Your task to perform on an android device: Add macbook to the cart on bestbuy, then select checkout. Image 0: 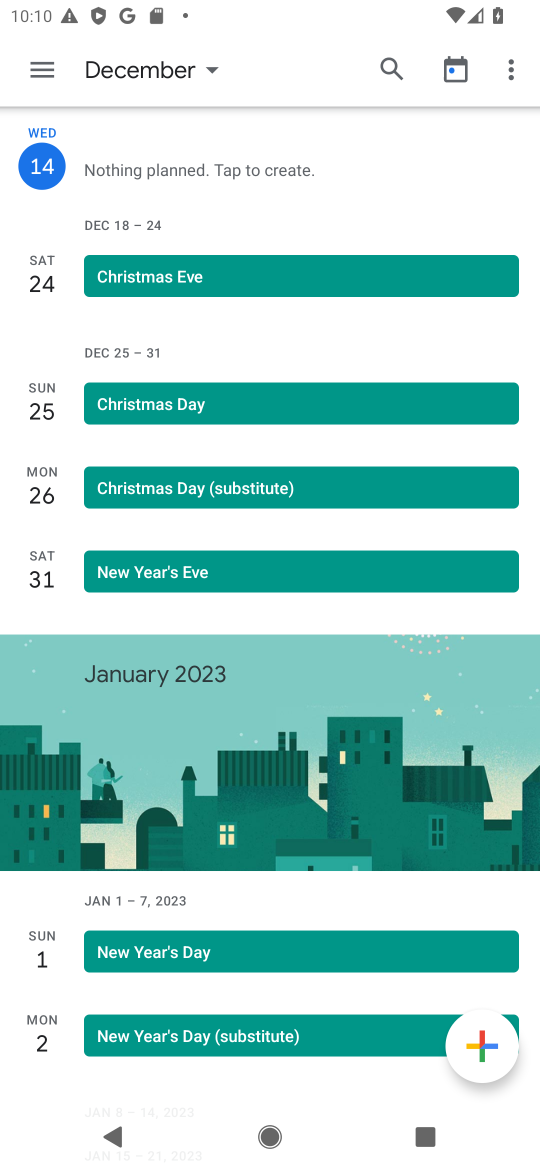
Step 0: press home button
Your task to perform on an android device: Add macbook to the cart on bestbuy, then select checkout. Image 1: 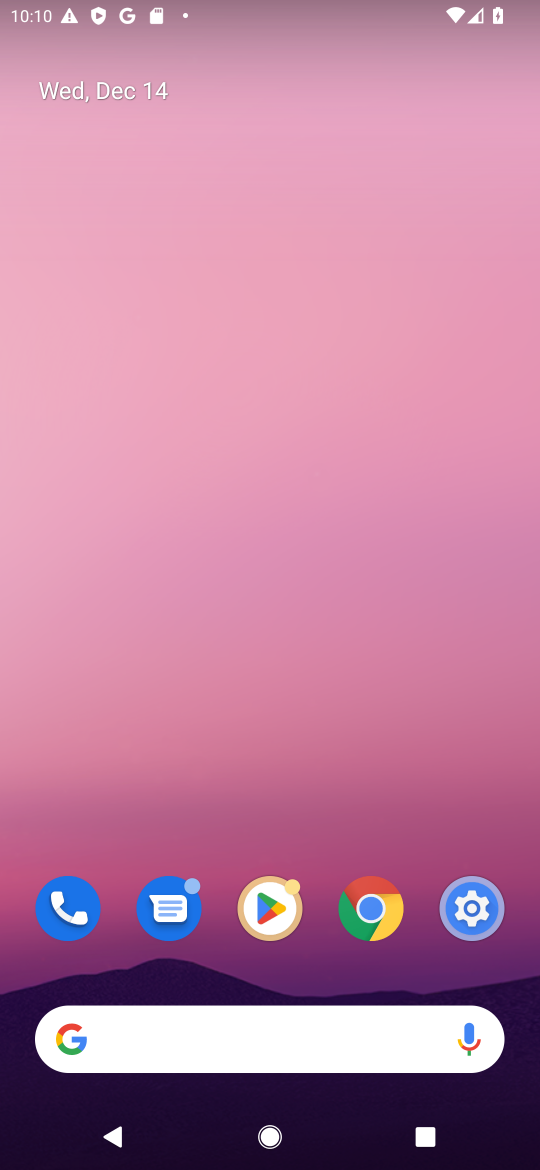
Step 1: click (367, 937)
Your task to perform on an android device: Add macbook to the cart on bestbuy, then select checkout. Image 2: 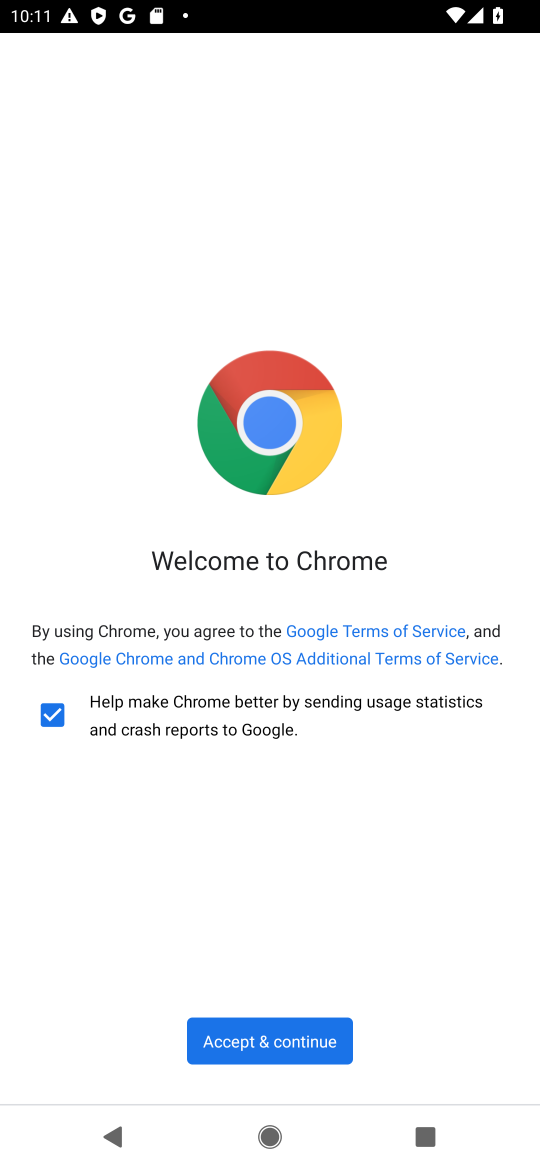
Step 2: click (300, 1039)
Your task to perform on an android device: Add macbook to the cart on bestbuy, then select checkout. Image 3: 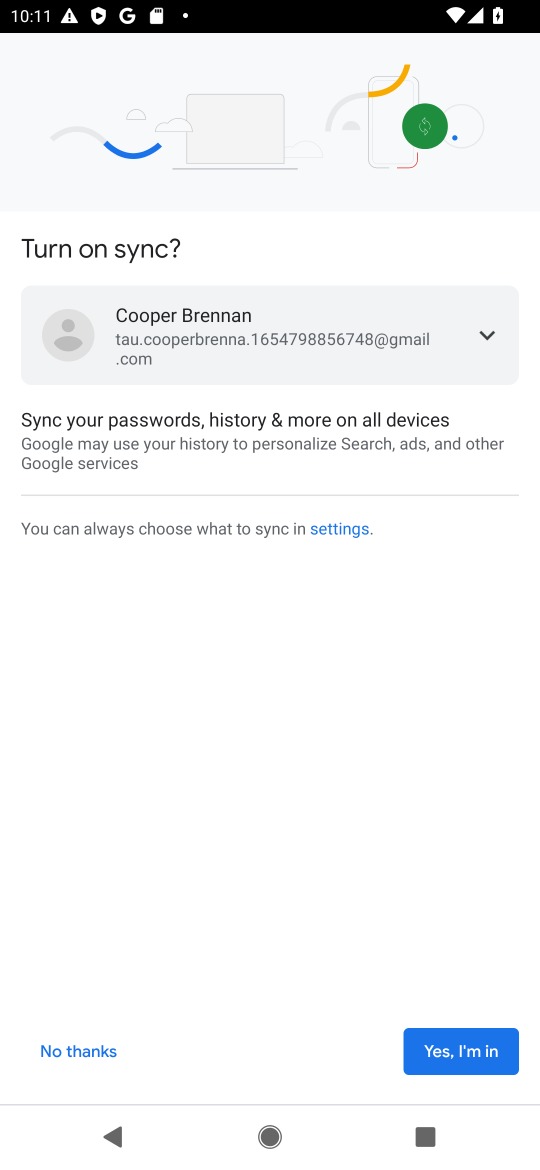
Step 3: click (498, 1063)
Your task to perform on an android device: Add macbook to the cart on bestbuy, then select checkout. Image 4: 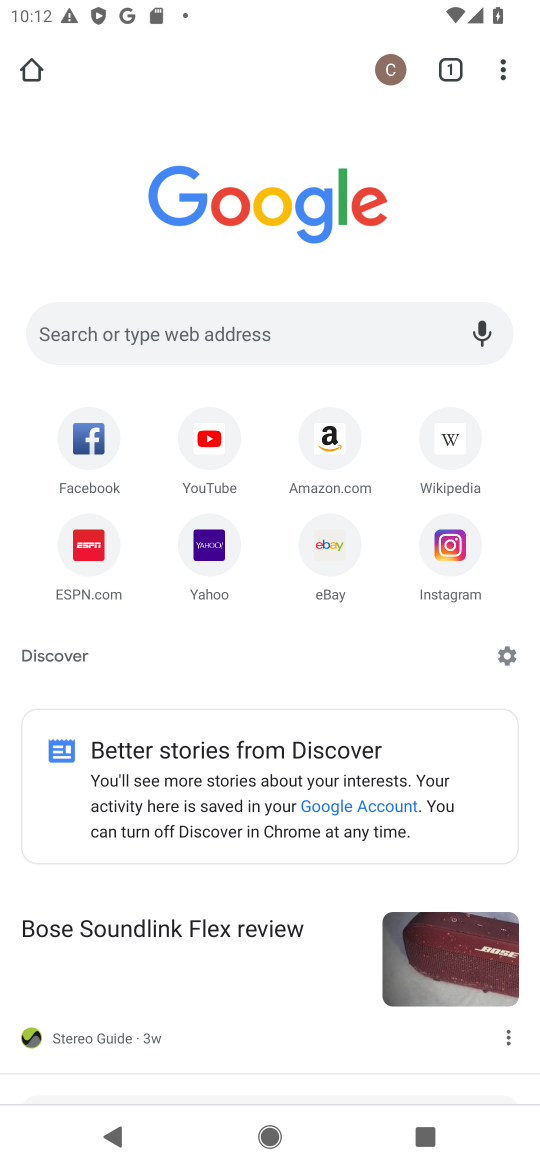
Step 4: click (221, 347)
Your task to perform on an android device: Add macbook to the cart on bestbuy, then select checkout. Image 5: 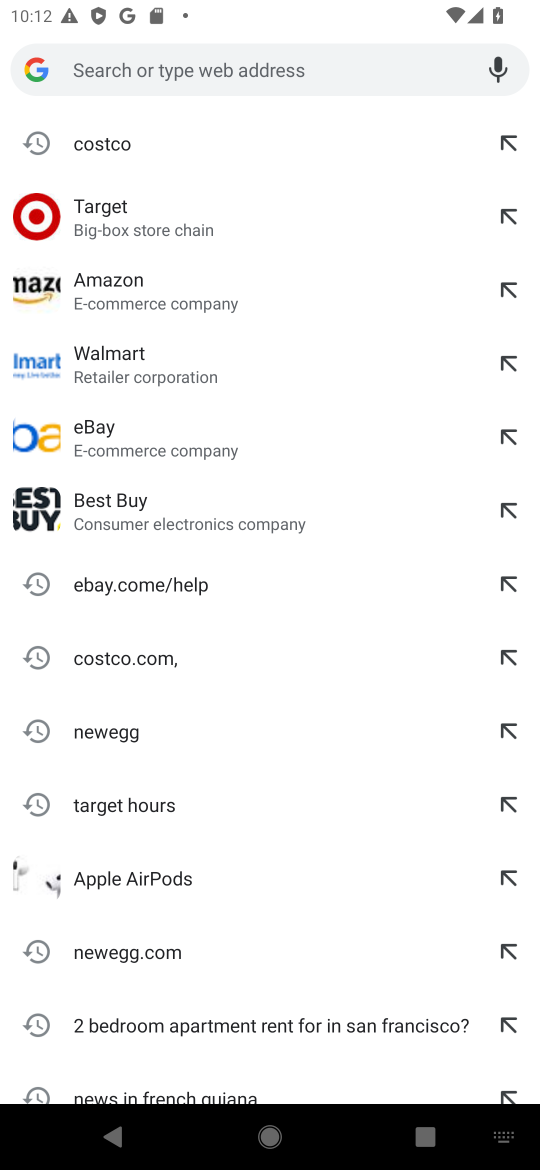
Step 5: type "bestbuy"
Your task to perform on an android device: Add macbook to the cart on bestbuy, then select checkout. Image 6: 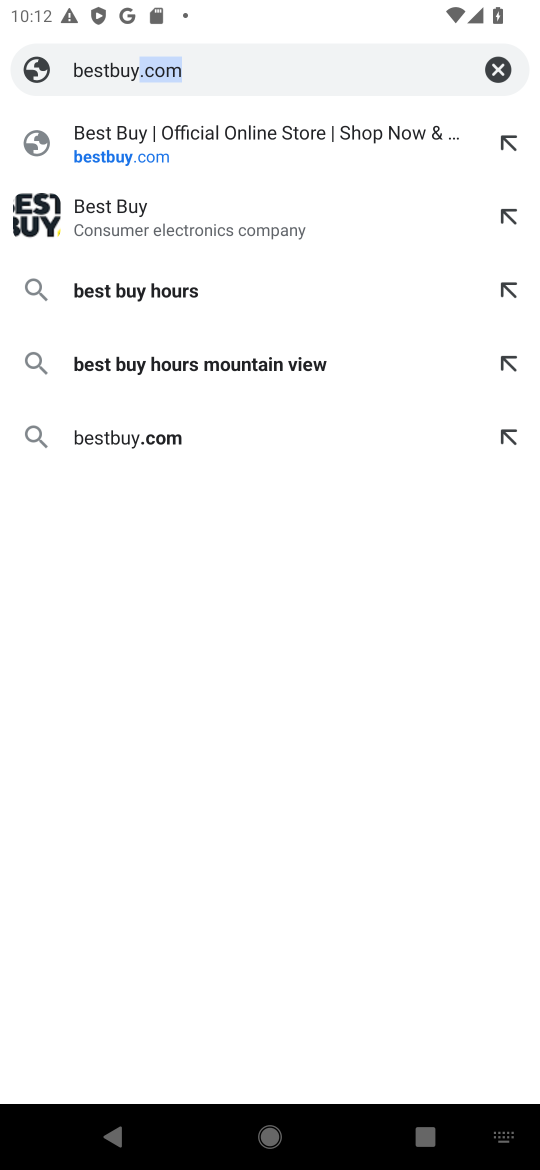
Step 6: click (129, 164)
Your task to perform on an android device: Add macbook to the cart on bestbuy, then select checkout. Image 7: 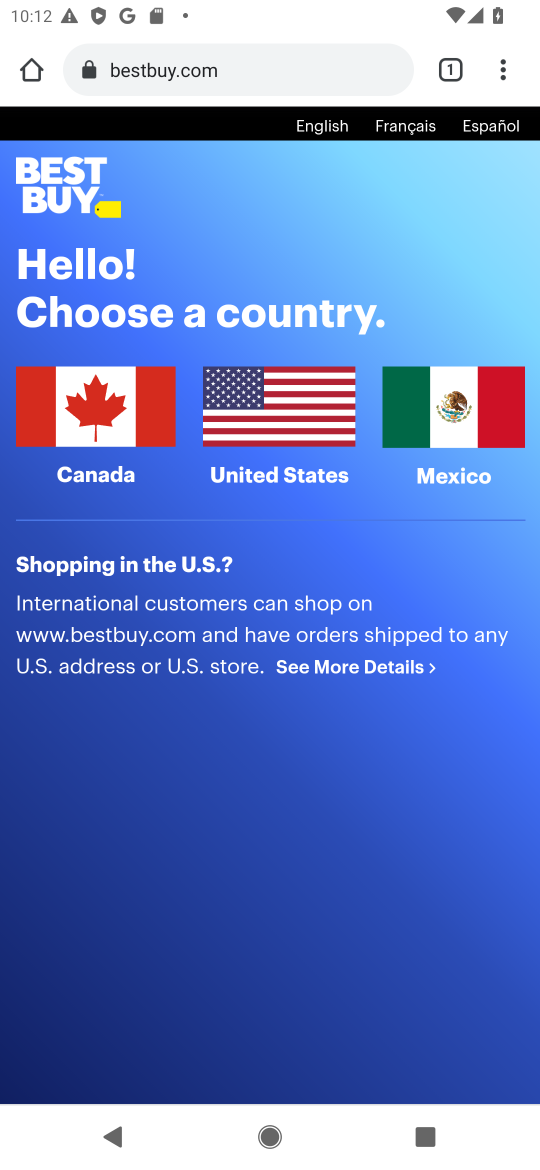
Step 7: click (90, 433)
Your task to perform on an android device: Add macbook to the cart on bestbuy, then select checkout. Image 8: 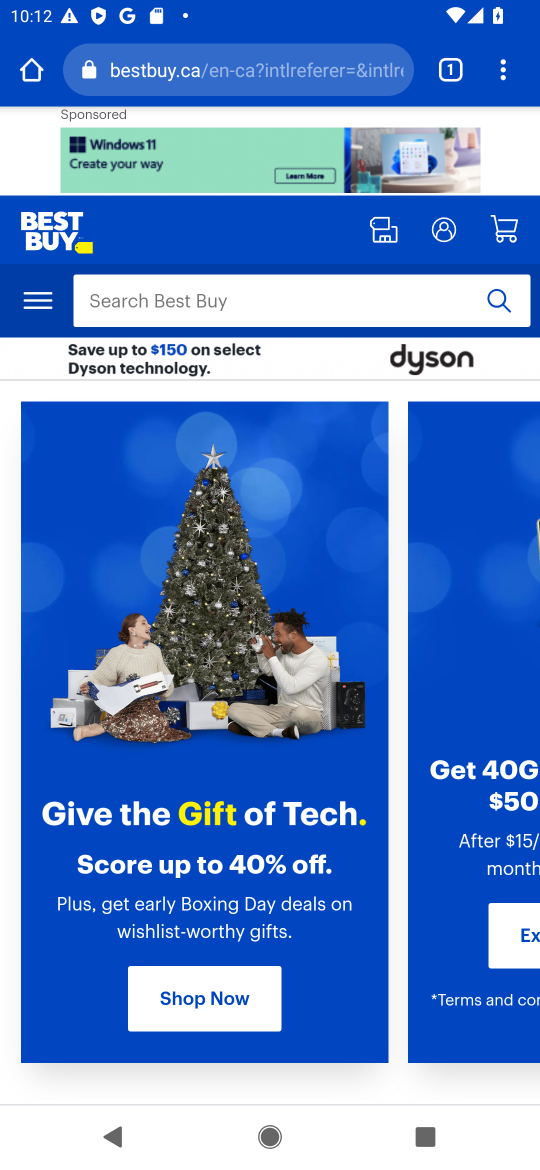
Step 8: click (167, 293)
Your task to perform on an android device: Add macbook to the cart on bestbuy, then select checkout. Image 9: 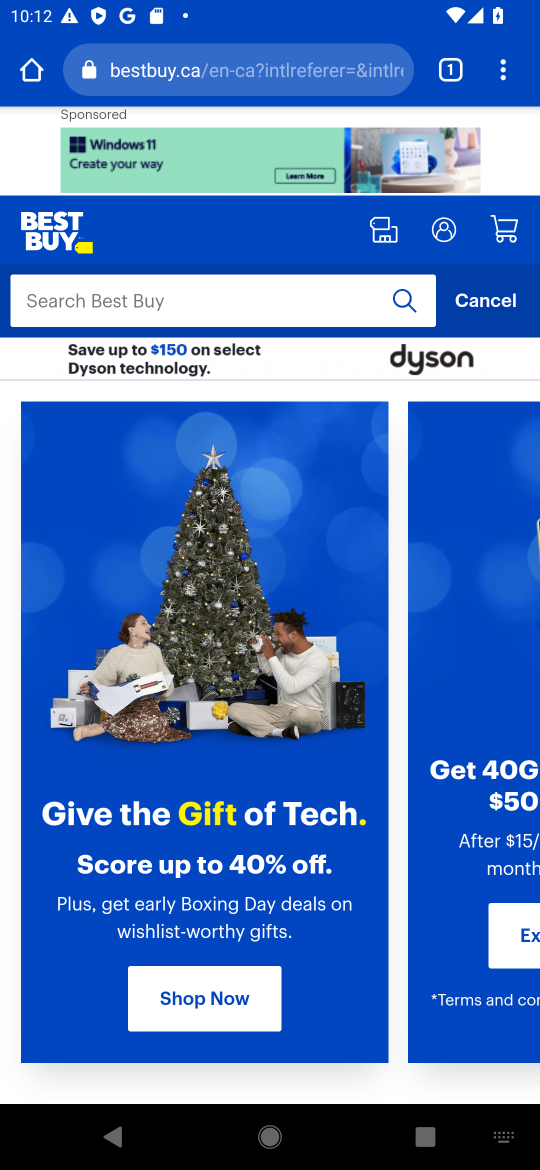
Step 9: type "macbook pro"
Your task to perform on an android device: Add macbook to the cart on bestbuy, then select checkout. Image 10: 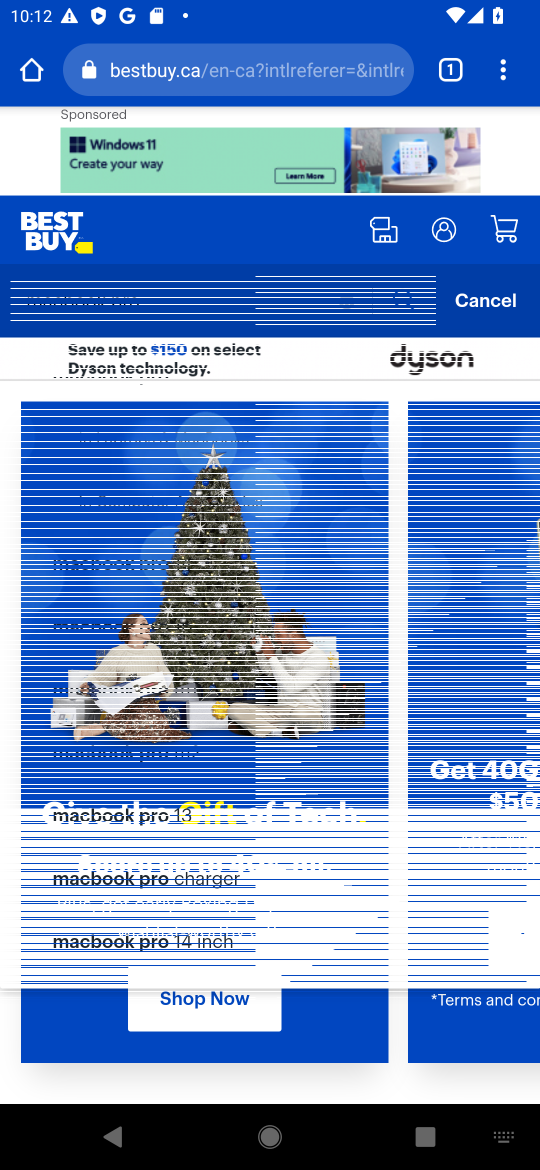
Step 10: click (403, 297)
Your task to perform on an android device: Add macbook to the cart on bestbuy, then select checkout. Image 11: 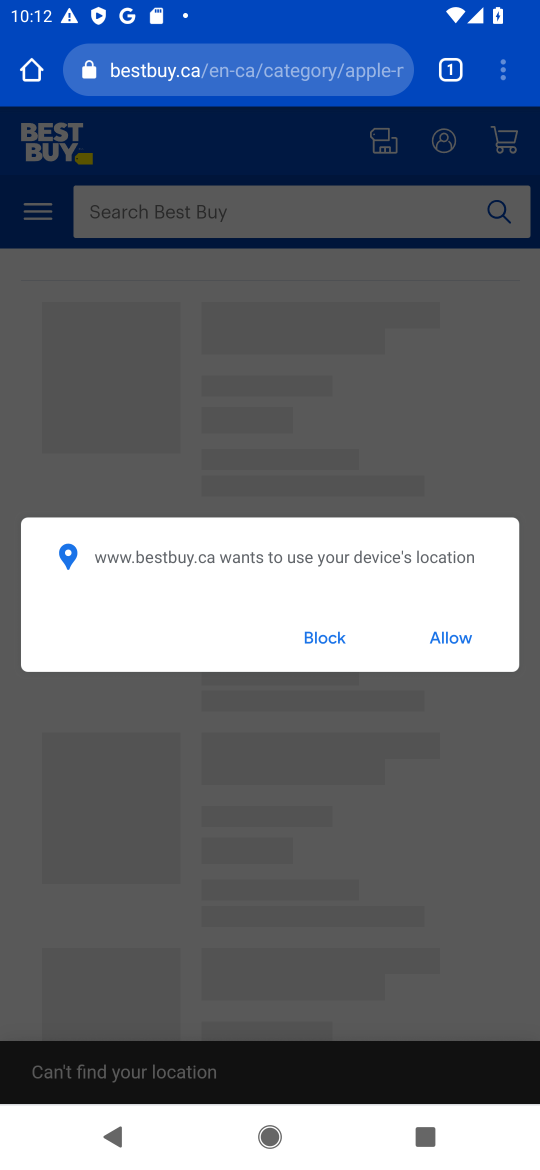
Step 11: click (425, 651)
Your task to perform on an android device: Add macbook to the cart on bestbuy, then select checkout. Image 12: 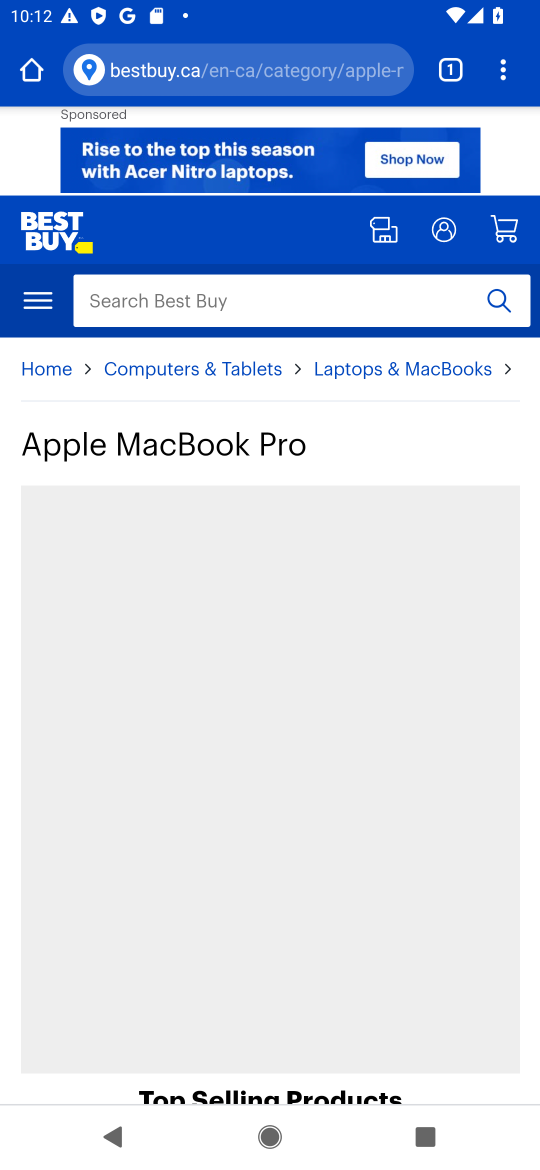
Step 12: task complete